Your task to perform on an android device: turn pop-ups on in chrome Image 0: 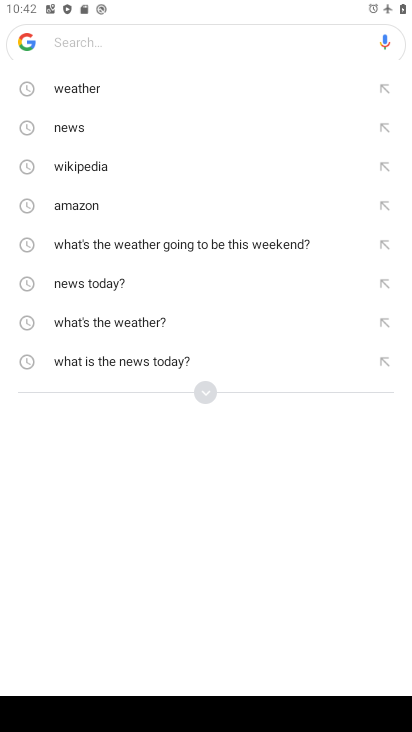
Step 0: press home button
Your task to perform on an android device: turn pop-ups on in chrome Image 1: 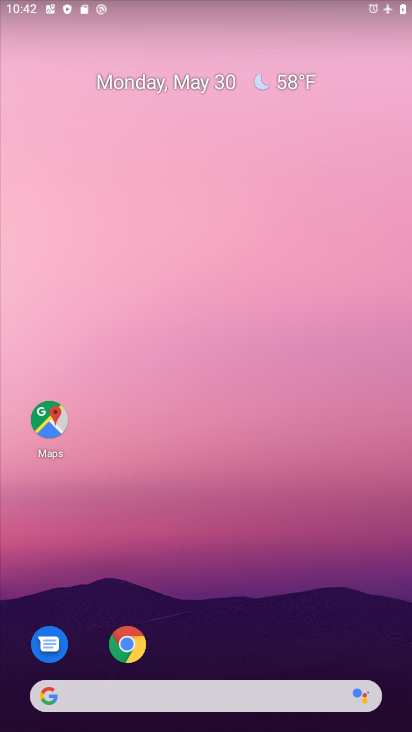
Step 1: click (127, 644)
Your task to perform on an android device: turn pop-ups on in chrome Image 2: 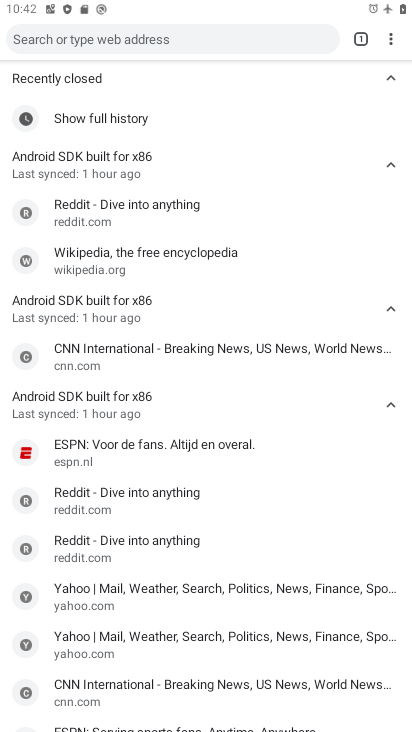
Step 2: click (390, 43)
Your task to perform on an android device: turn pop-ups on in chrome Image 3: 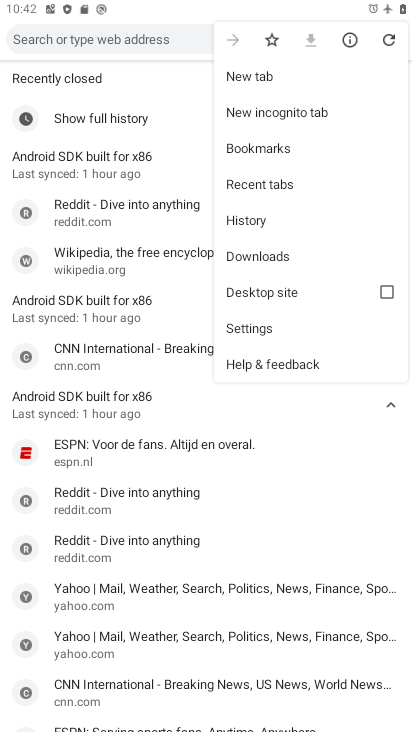
Step 3: click (258, 324)
Your task to perform on an android device: turn pop-ups on in chrome Image 4: 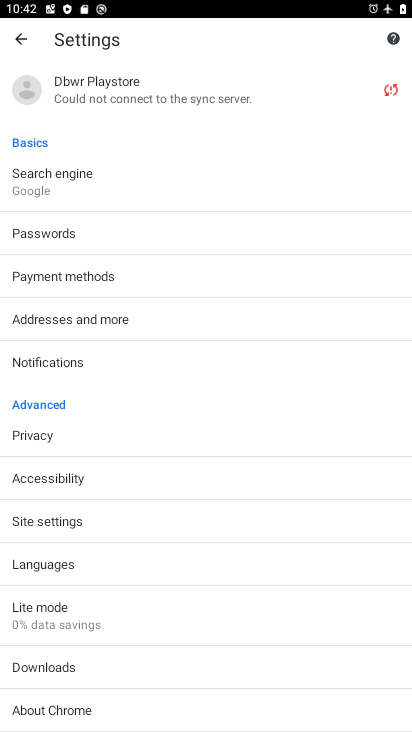
Step 4: click (58, 512)
Your task to perform on an android device: turn pop-ups on in chrome Image 5: 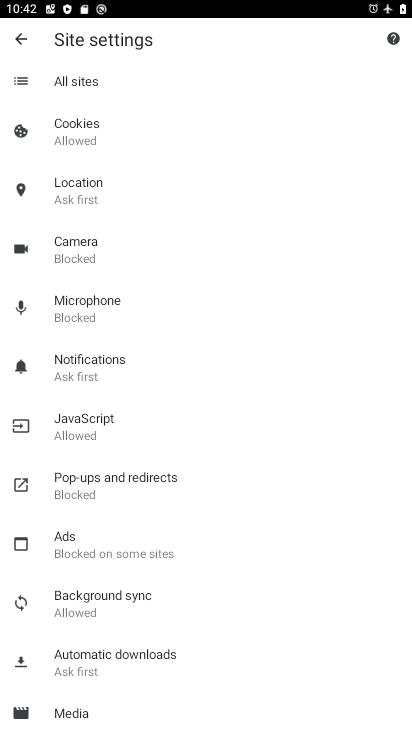
Step 5: click (82, 477)
Your task to perform on an android device: turn pop-ups on in chrome Image 6: 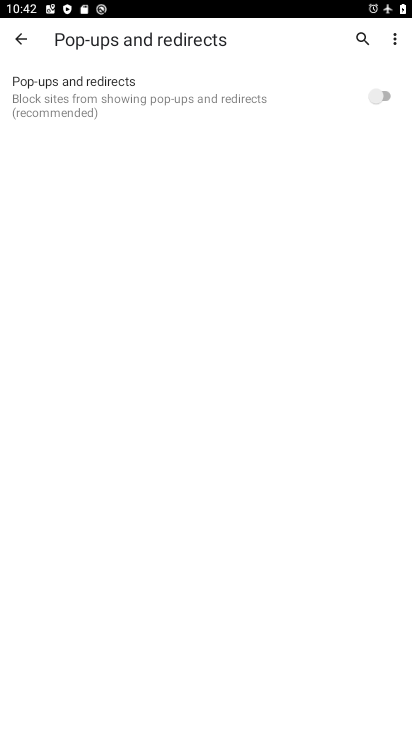
Step 6: click (389, 93)
Your task to perform on an android device: turn pop-ups on in chrome Image 7: 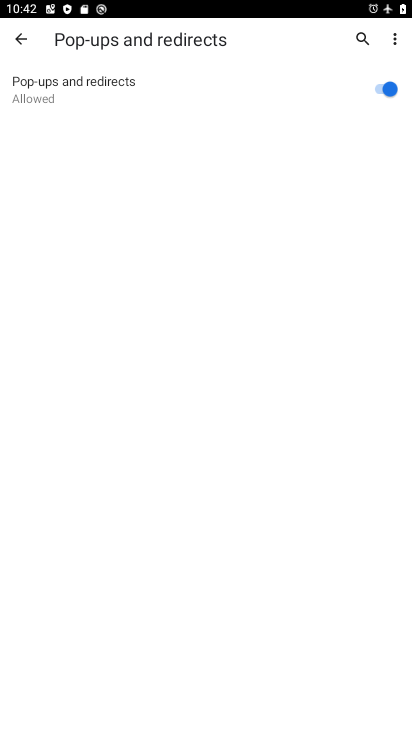
Step 7: task complete